Your task to perform on an android device: remove spam from my inbox in the gmail app Image 0: 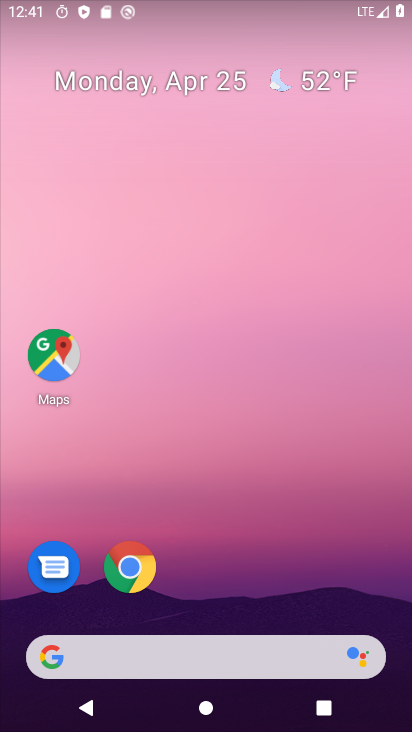
Step 0: drag from (243, 567) to (240, 25)
Your task to perform on an android device: remove spam from my inbox in the gmail app Image 1: 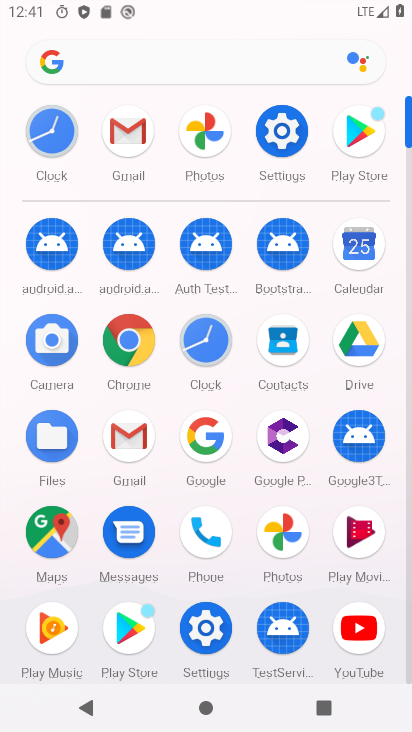
Step 1: click (133, 134)
Your task to perform on an android device: remove spam from my inbox in the gmail app Image 2: 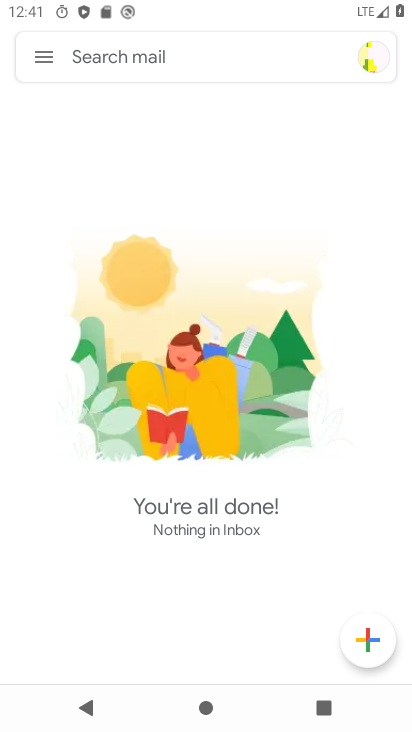
Step 2: click (45, 55)
Your task to perform on an android device: remove spam from my inbox in the gmail app Image 3: 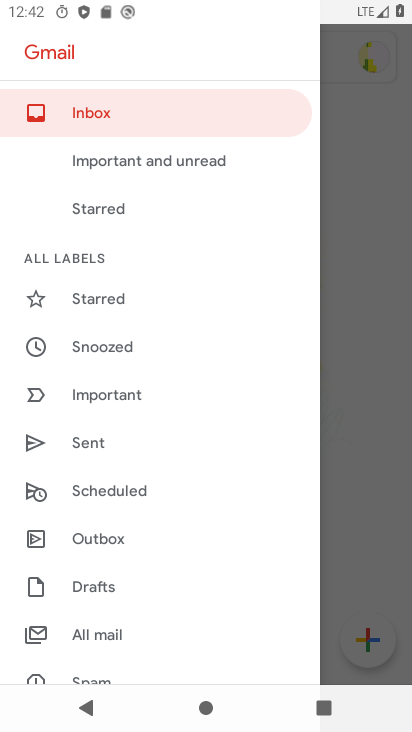
Step 3: drag from (187, 574) to (194, 346)
Your task to perform on an android device: remove spam from my inbox in the gmail app Image 4: 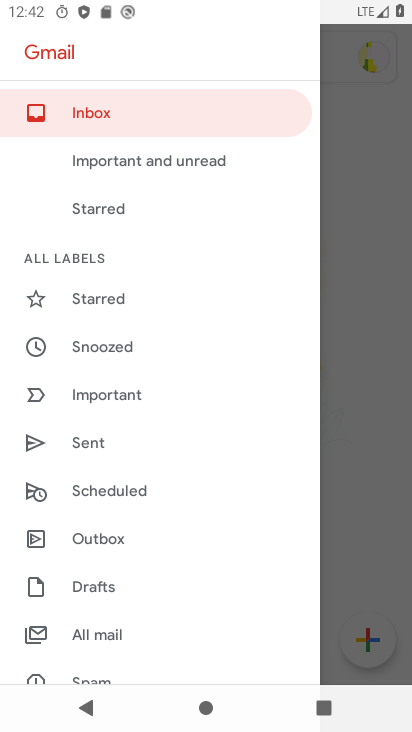
Step 4: drag from (135, 601) to (192, 303)
Your task to perform on an android device: remove spam from my inbox in the gmail app Image 5: 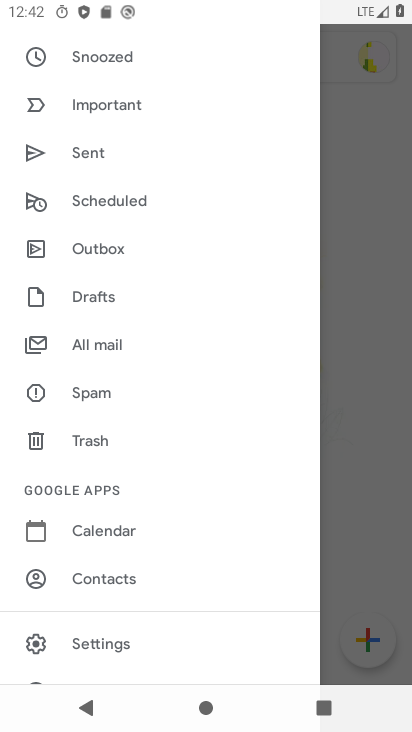
Step 5: click (102, 390)
Your task to perform on an android device: remove spam from my inbox in the gmail app Image 6: 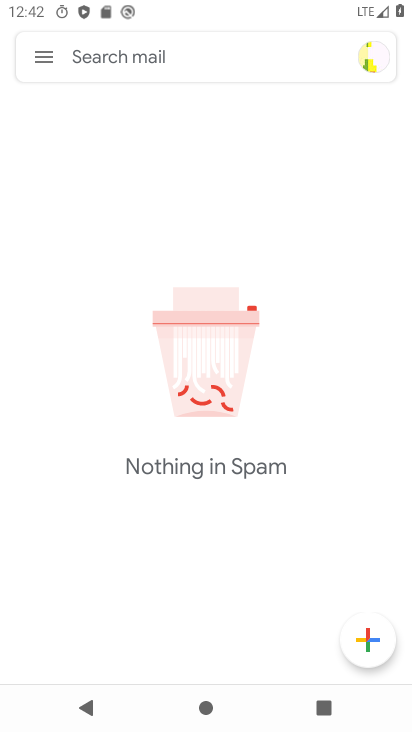
Step 6: task complete